Your task to perform on an android device: Clear the cart on bestbuy.com. Search for alienware aurora on bestbuy.com, select the first entry, add it to the cart, then select checkout. Image 0: 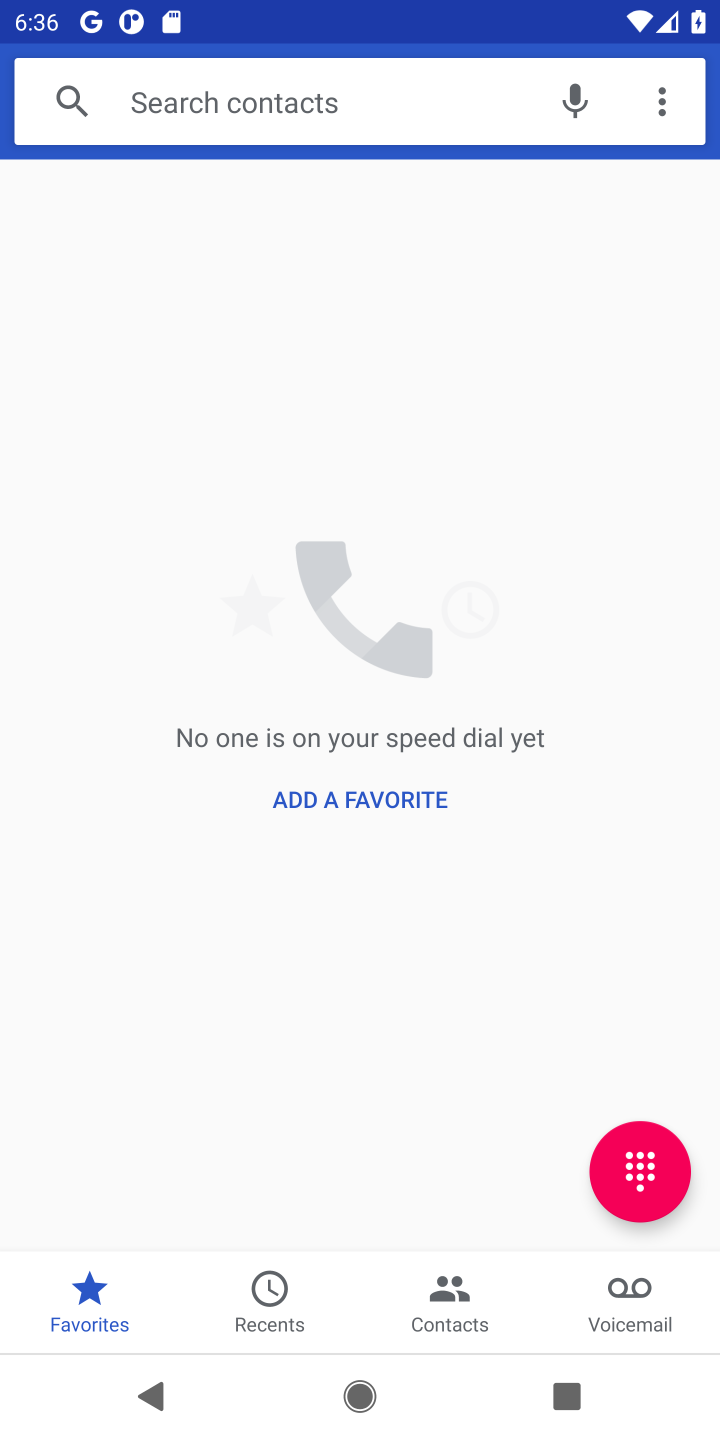
Step 0: press home button
Your task to perform on an android device: Clear the cart on bestbuy.com. Search for alienware aurora on bestbuy.com, select the first entry, add it to the cart, then select checkout. Image 1: 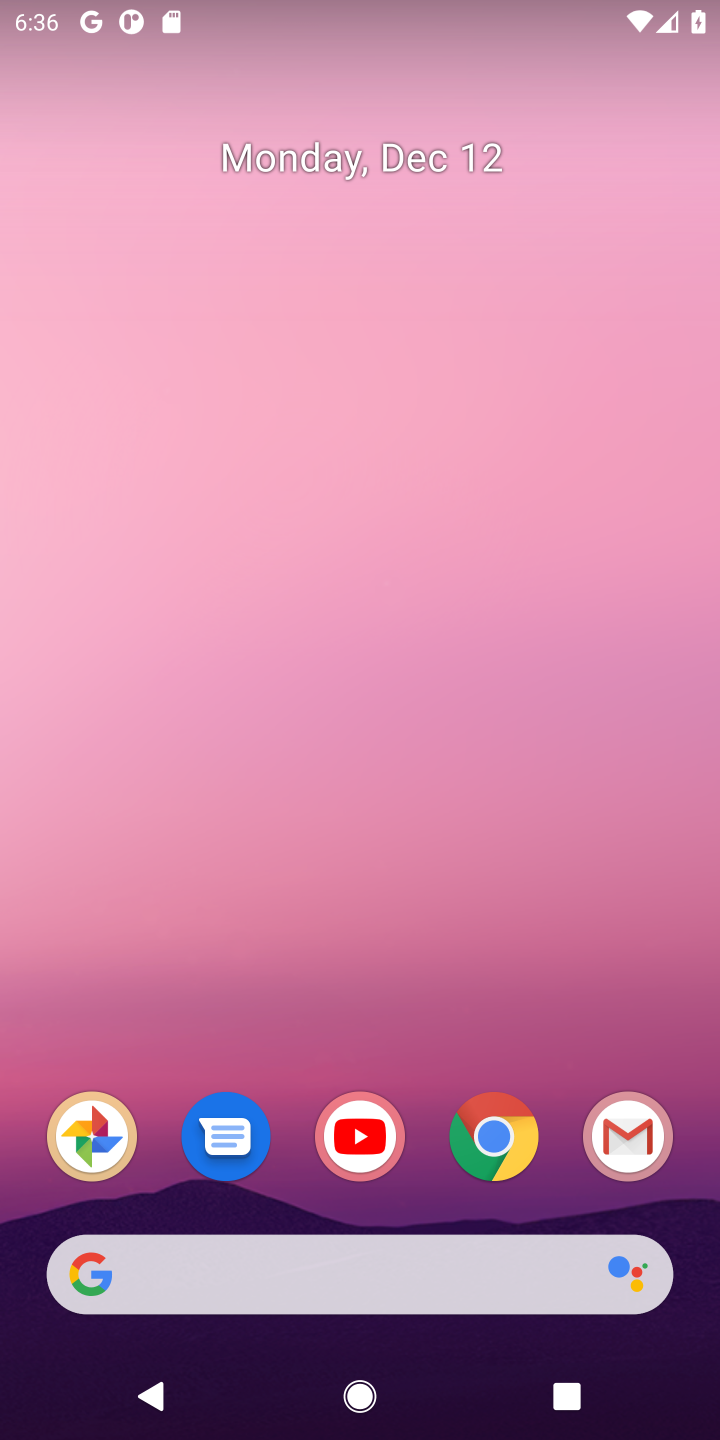
Step 1: click (488, 1147)
Your task to perform on an android device: Clear the cart on bestbuy.com. Search for alienware aurora on bestbuy.com, select the first entry, add it to the cart, then select checkout. Image 2: 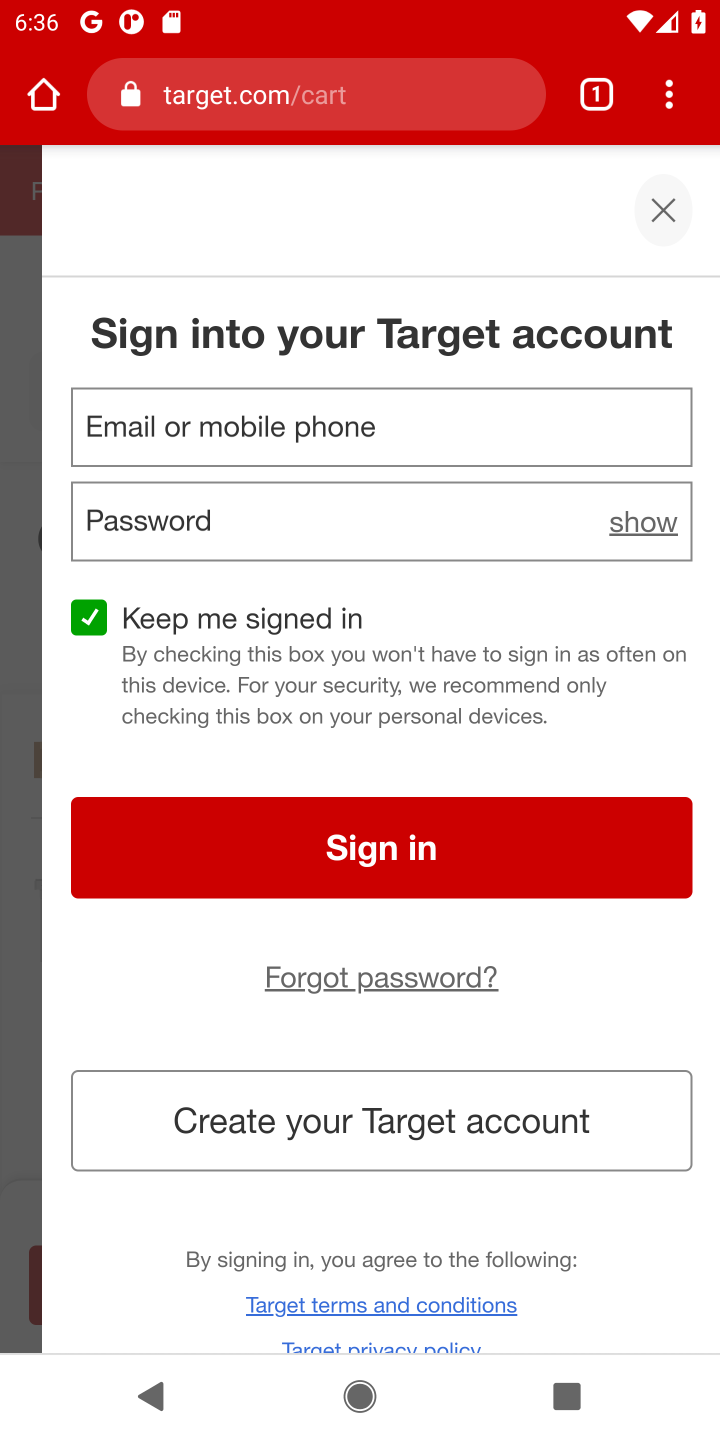
Step 2: click (250, 98)
Your task to perform on an android device: Clear the cart on bestbuy.com. Search for alienware aurora on bestbuy.com, select the first entry, add it to the cart, then select checkout. Image 3: 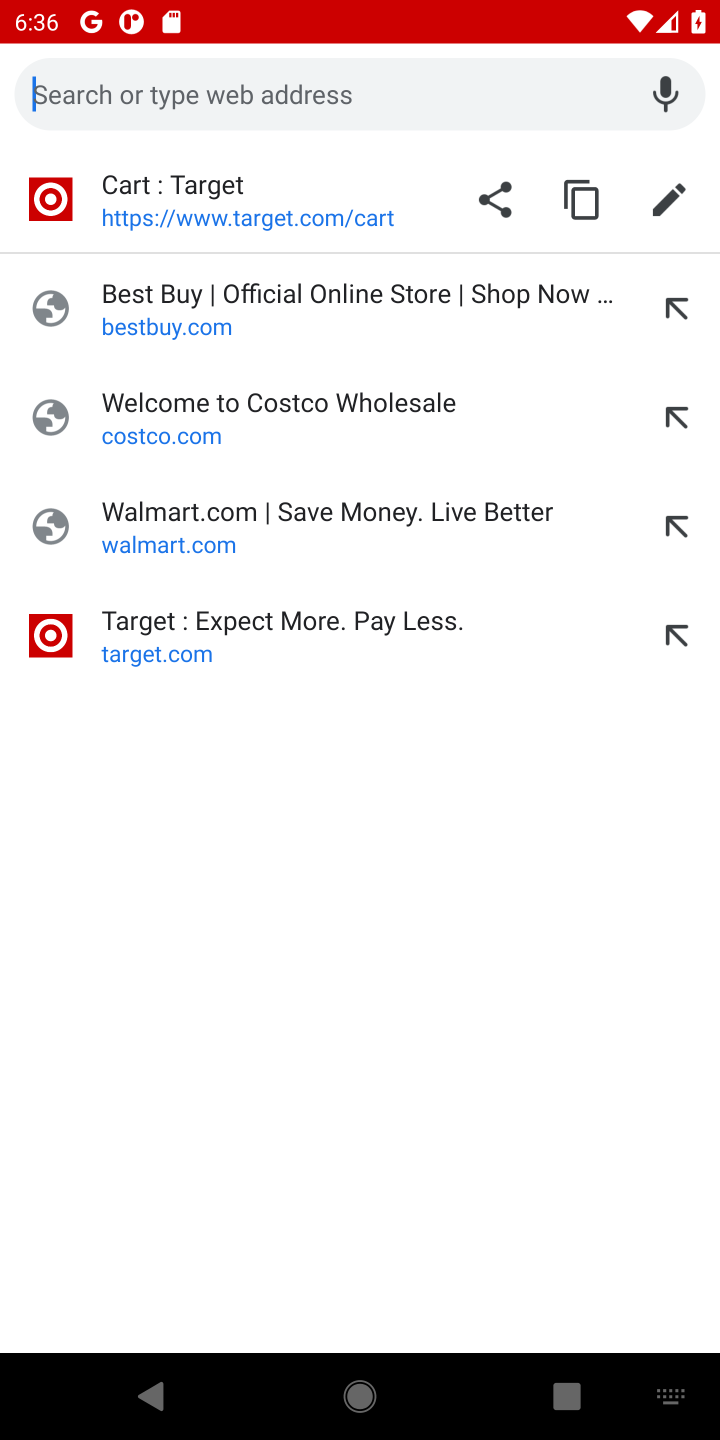
Step 3: click (186, 330)
Your task to perform on an android device: Clear the cart on bestbuy.com. Search for alienware aurora on bestbuy.com, select the first entry, add it to the cart, then select checkout. Image 4: 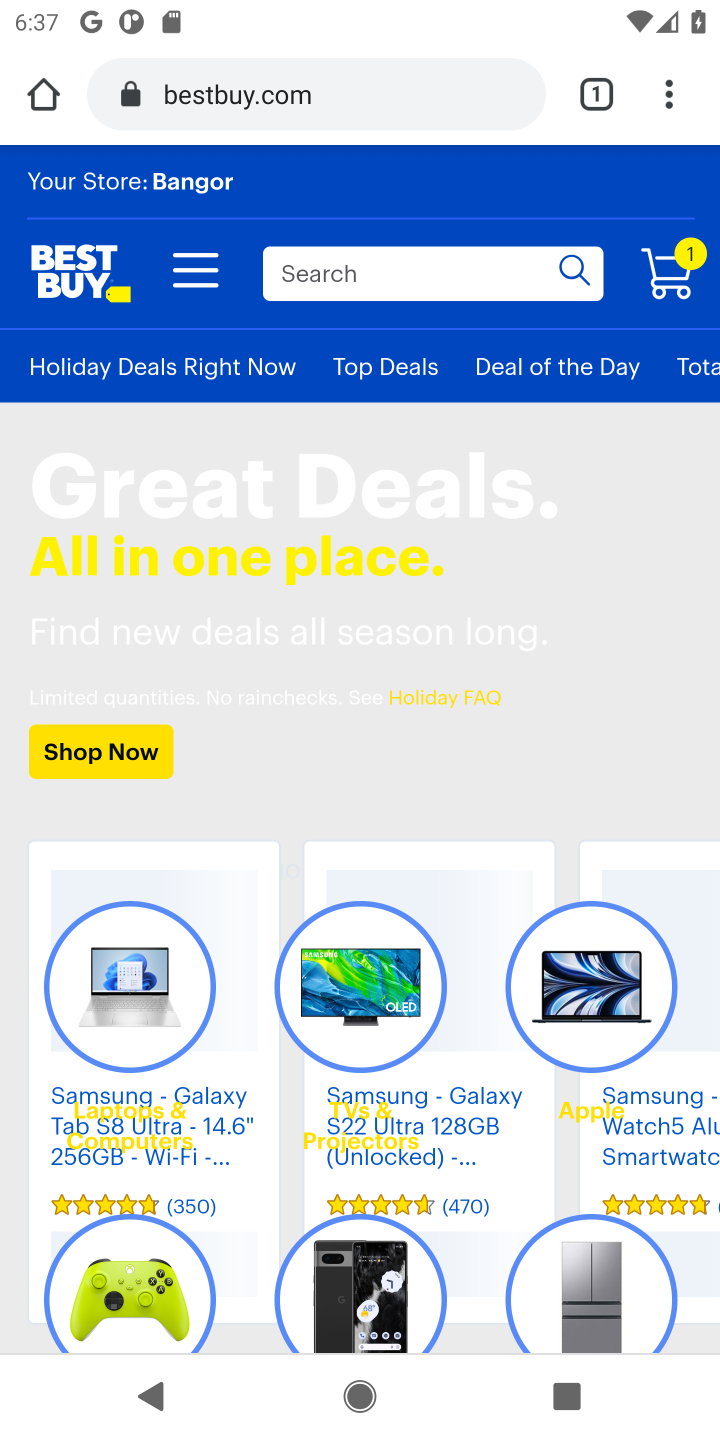
Step 4: click (665, 276)
Your task to perform on an android device: Clear the cart on bestbuy.com. Search for alienware aurora on bestbuy.com, select the first entry, add it to the cart, then select checkout. Image 5: 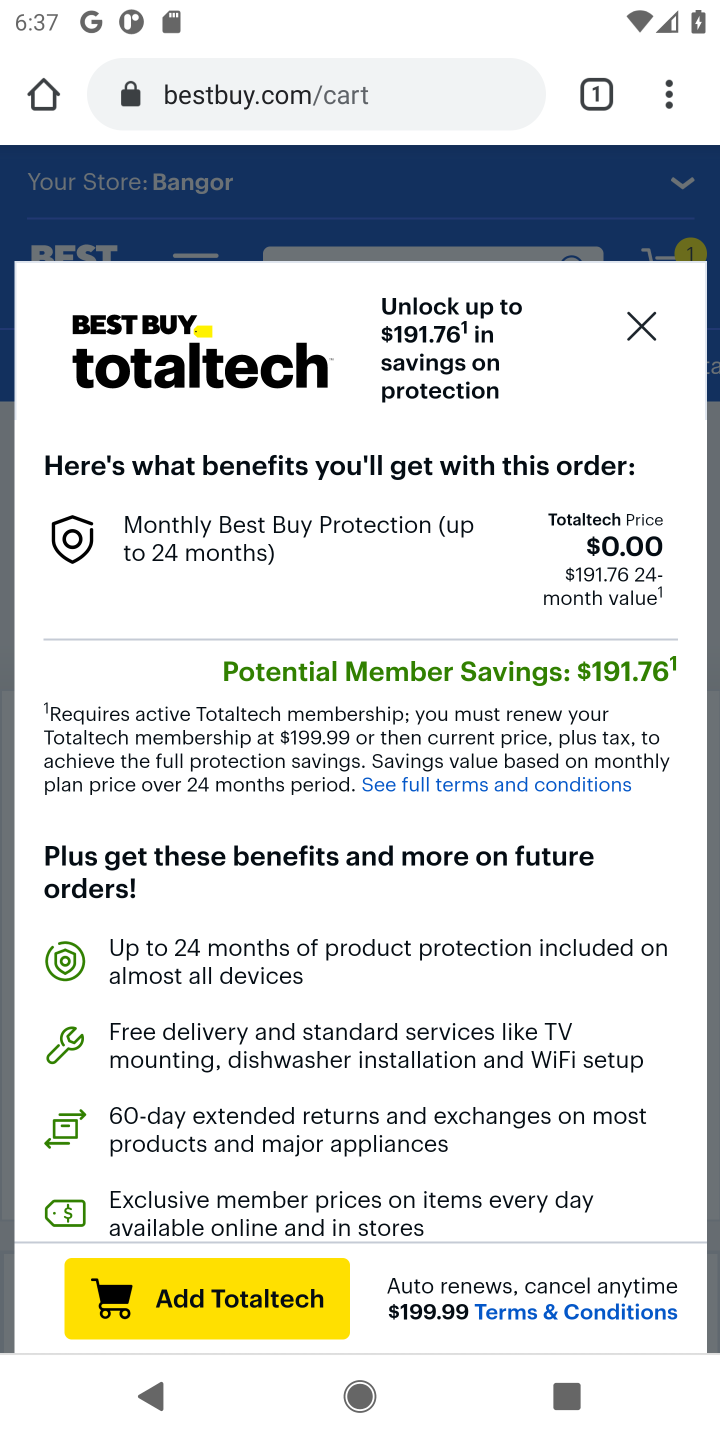
Step 5: click (640, 326)
Your task to perform on an android device: Clear the cart on bestbuy.com. Search for alienware aurora on bestbuy.com, select the first entry, add it to the cart, then select checkout. Image 6: 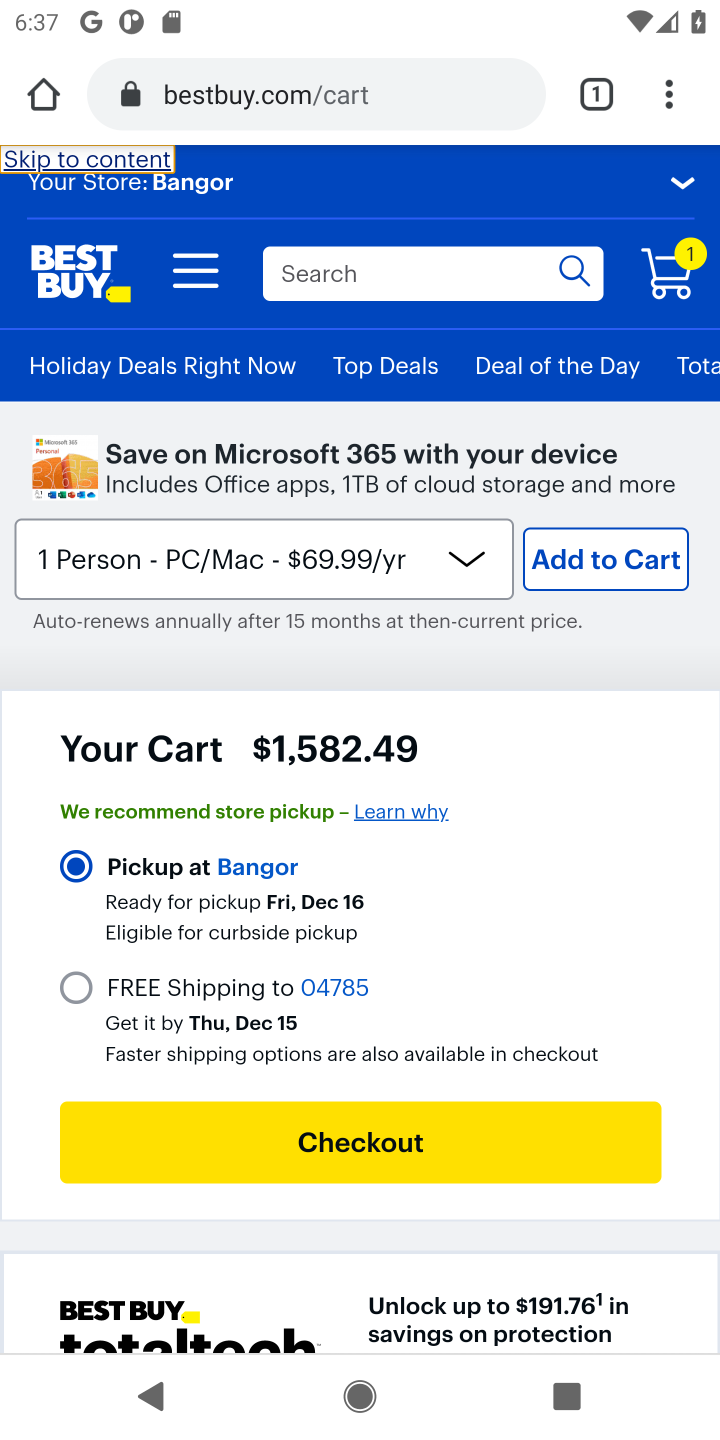
Step 6: drag from (465, 771) to (472, 301)
Your task to perform on an android device: Clear the cart on bestbuy.com. Search for alienware aurora on bestbuy.com, select the first entry, add it to the cart, then select checkout. Image 7: 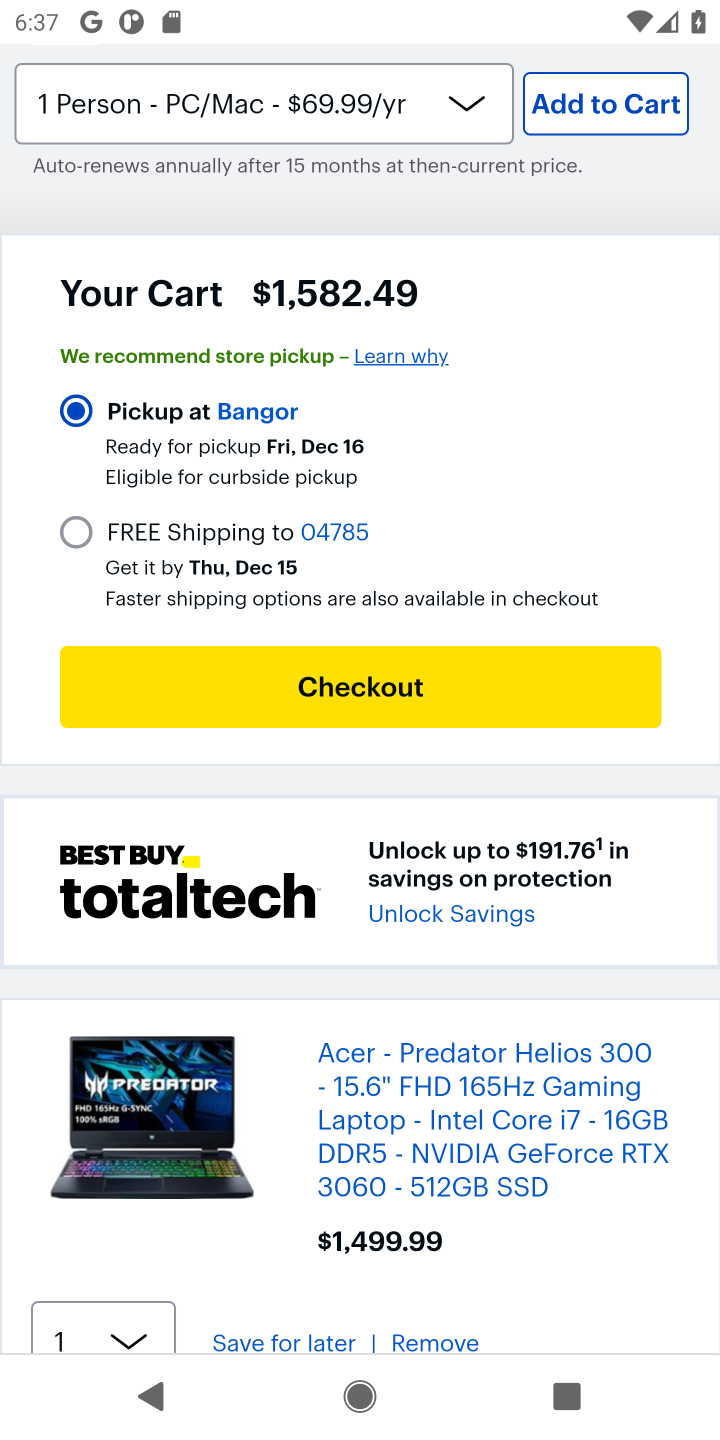
Step 7: drag from (451, 873) to (456, 355)
Your task to perform on an android device: Clear the cart on bestbuy.com. Search for alienware aurora on bestbuy.com, select the first entry, add it to the cart, then select checkout. Image 8: 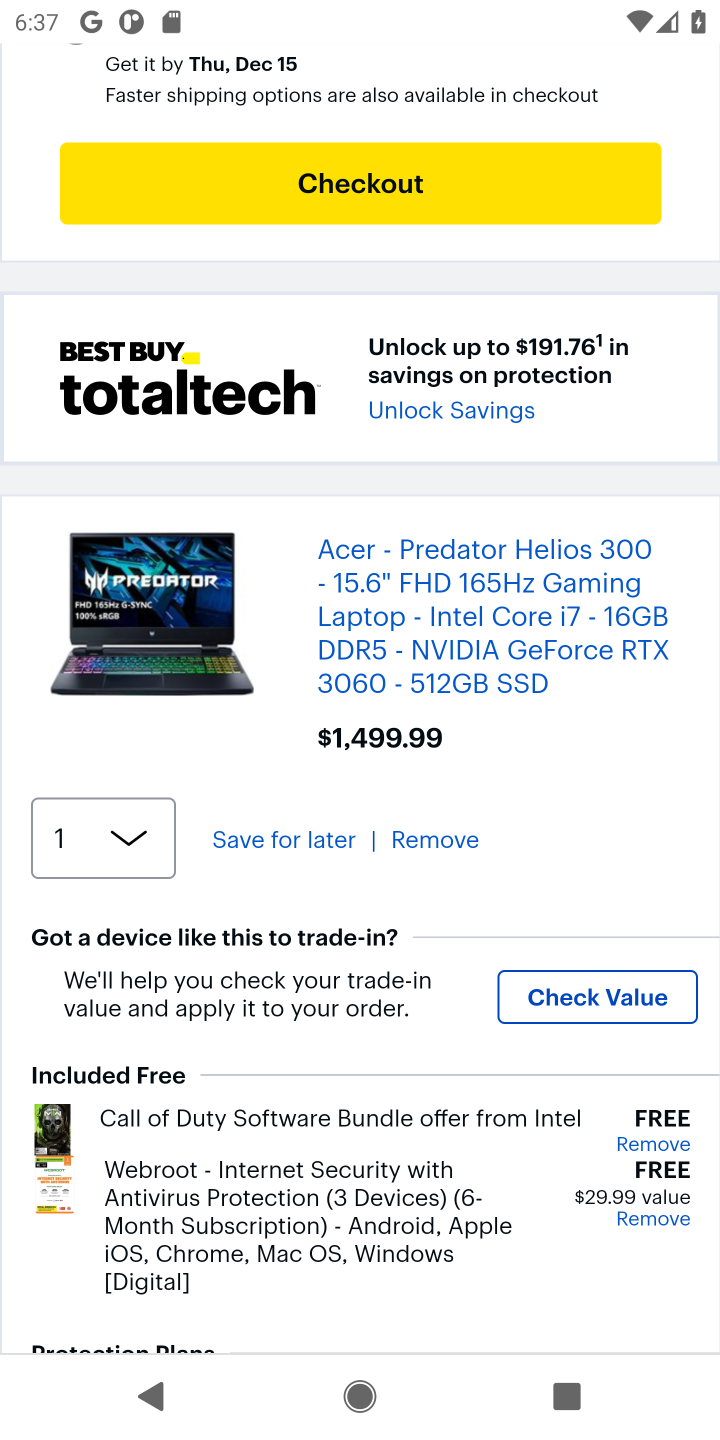
Step 8: click (418, 843)
Your task to perform on an android device: Clear the cart on bestbuy.com. Search for alienware aurora on bestbuy.com, select the first entry, add it to the cart, then select checkout. Image 9: 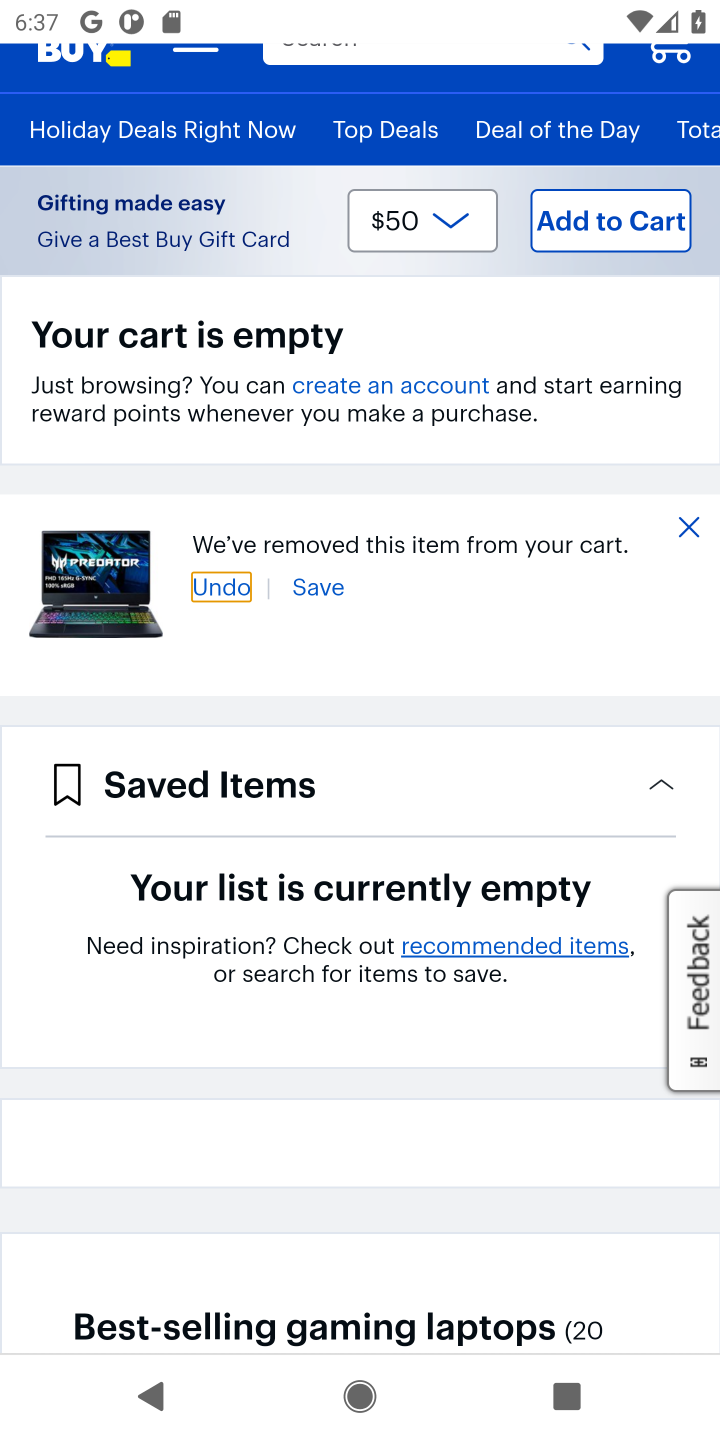
Step 9: drag from (327, 464) to (338, 887)
Your task to perform on an android device: Clear the cart on bestbuy.com. Search for alienware aurora on bestbuy.com, select the first entry, add it to the cart, then select checkout. Image 10: 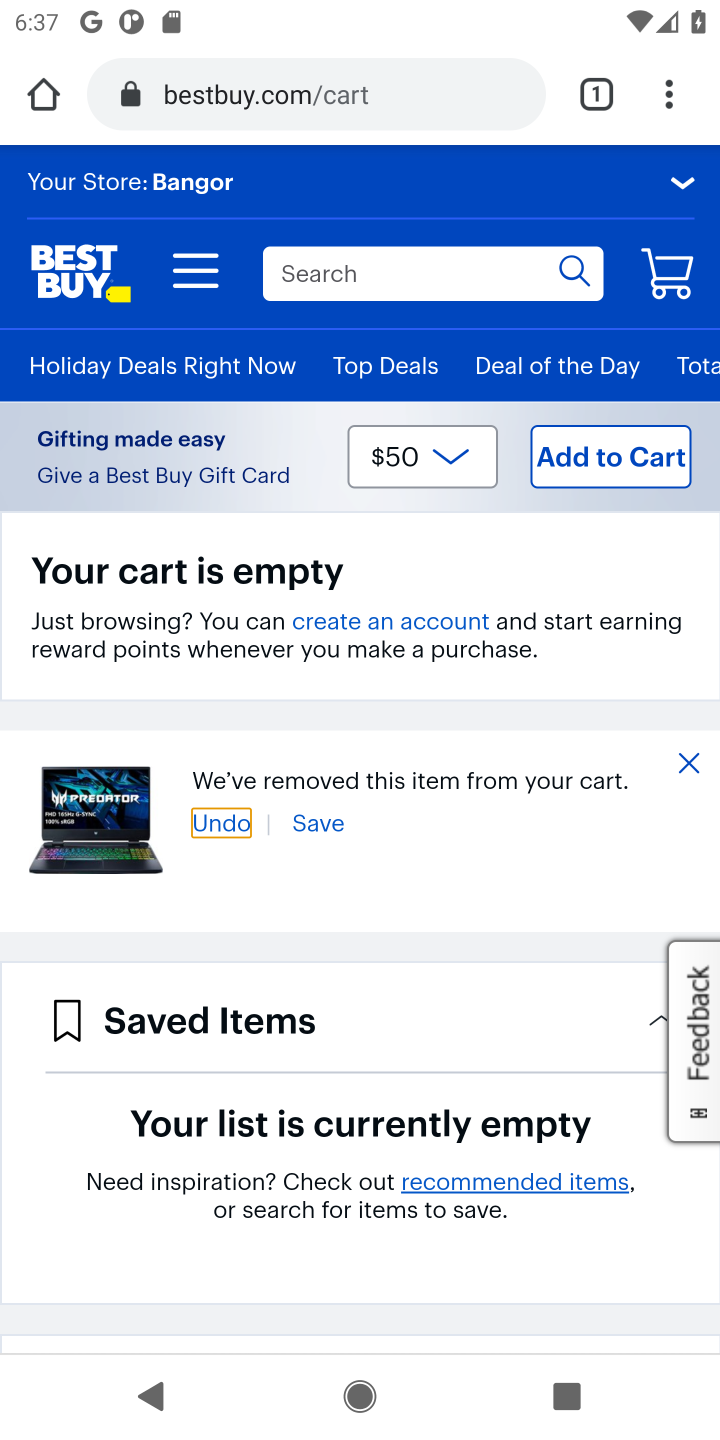
Step 10: click (324, 275)
Your task to perform on an android device: Clear the cart on bestbuy.com. Search for alienware aurora on bestbuy.com, select the first entry, add it to the cart, then select checkout. Image 11: 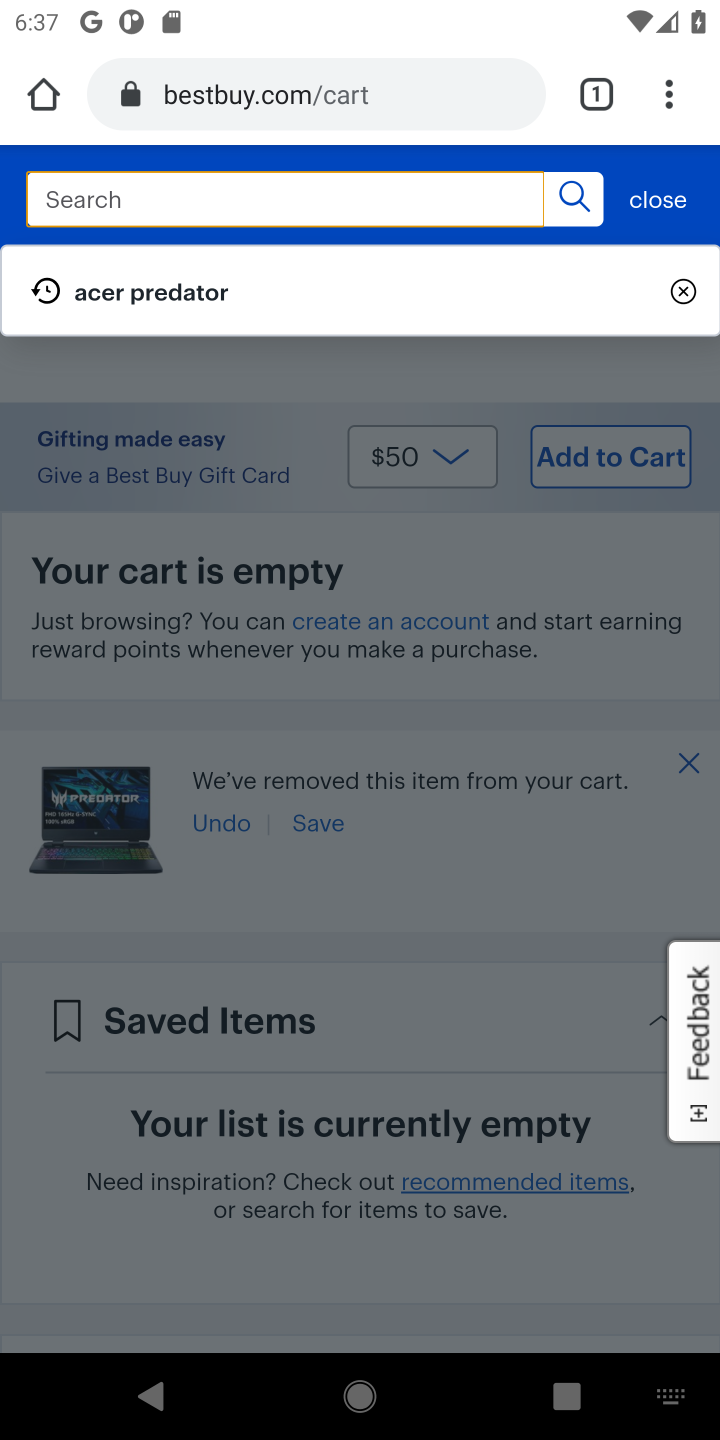
Step 11: type "alienware aurora"
Your task to perform on an android device: Clear the cart on bestbuy.com. Search for alienware aurora on bestbuy.com, select the first entry, add it to the cart, then select checkout. Image 12: 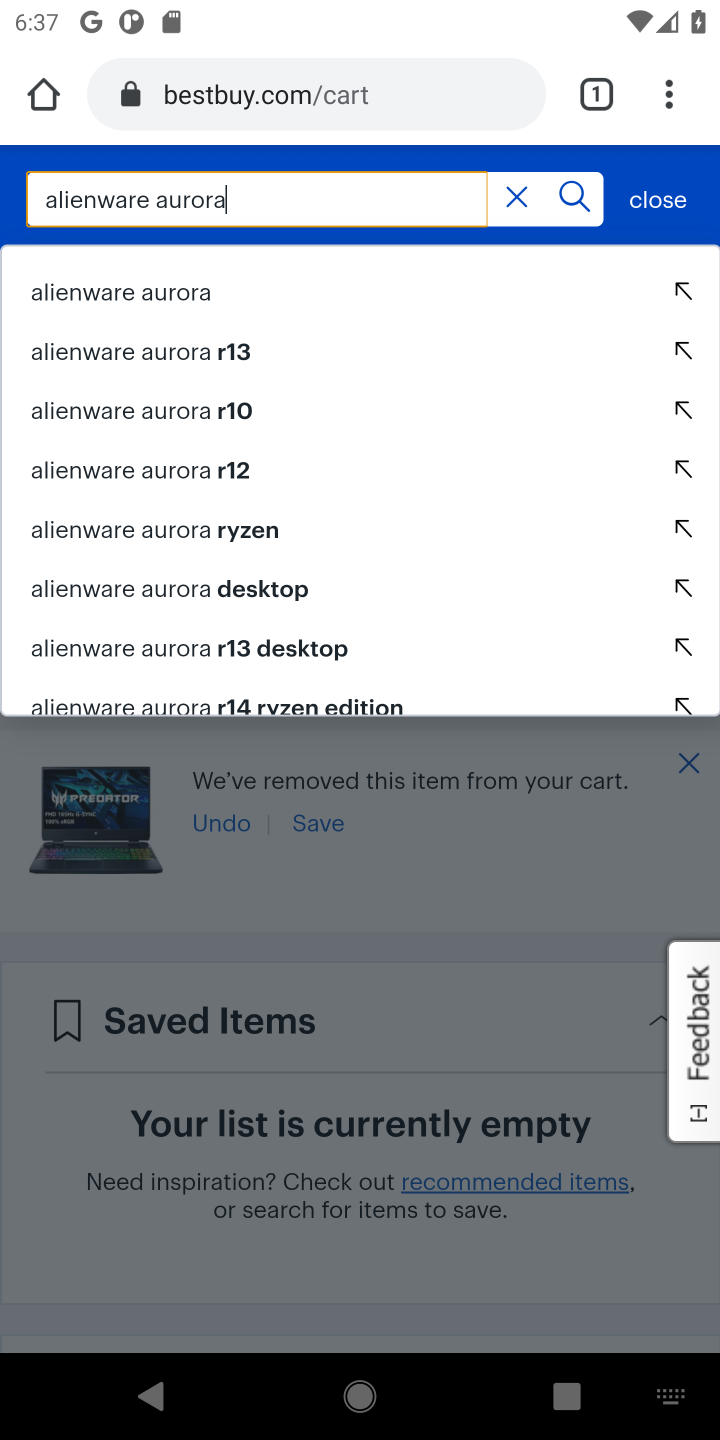
Step 12: click (137, 297)
Your task to perform on an android device: Clear the cart on bestbuy.com. Search for alienware aurora on bestbuy.com, select the first entry, add it to the cart, then select checkout. Image 13: 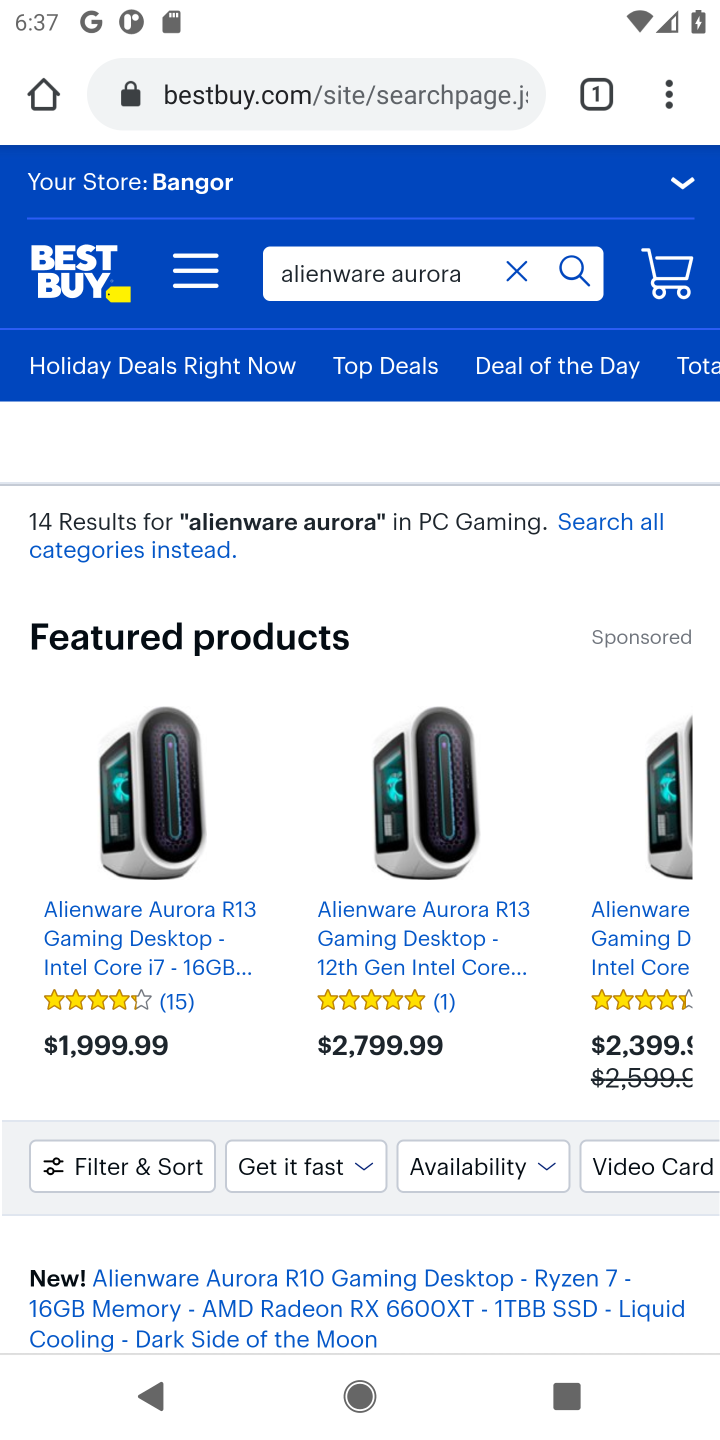
Step 13: drag from (265, 932) to (260, 408)
Your task to perform on an android device: Clear the cart on bestbuy.com. Search for alienware aurora on bestbuy.com, select the first entry, add it to the cart, then select checkout. Image 14: 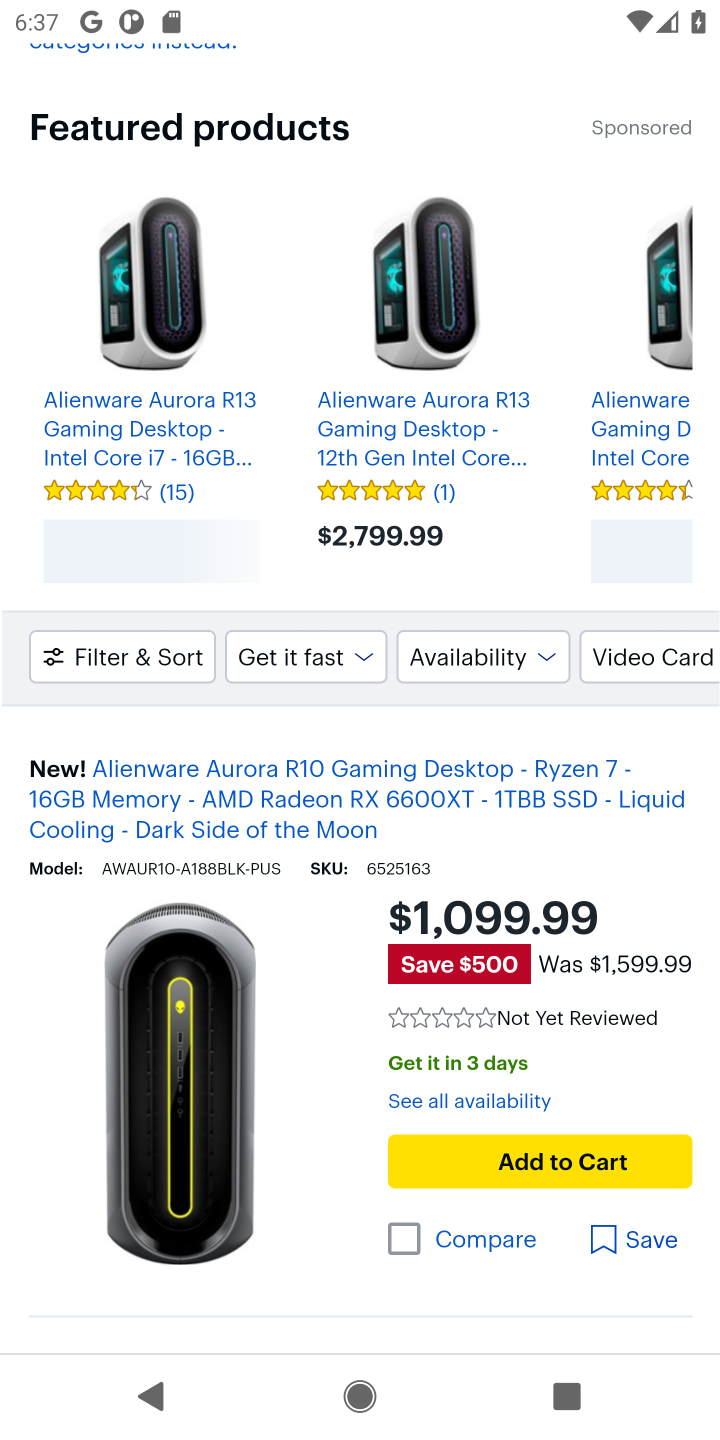
Step 14: drag from (230, 966) to (255, 492)
Your task to perform on an android device: Clear the cart on bestbuy.com. Search for alienware aurora on bestbuy.com, select the first entry, add it to the cart, then select checkout. Image 15: 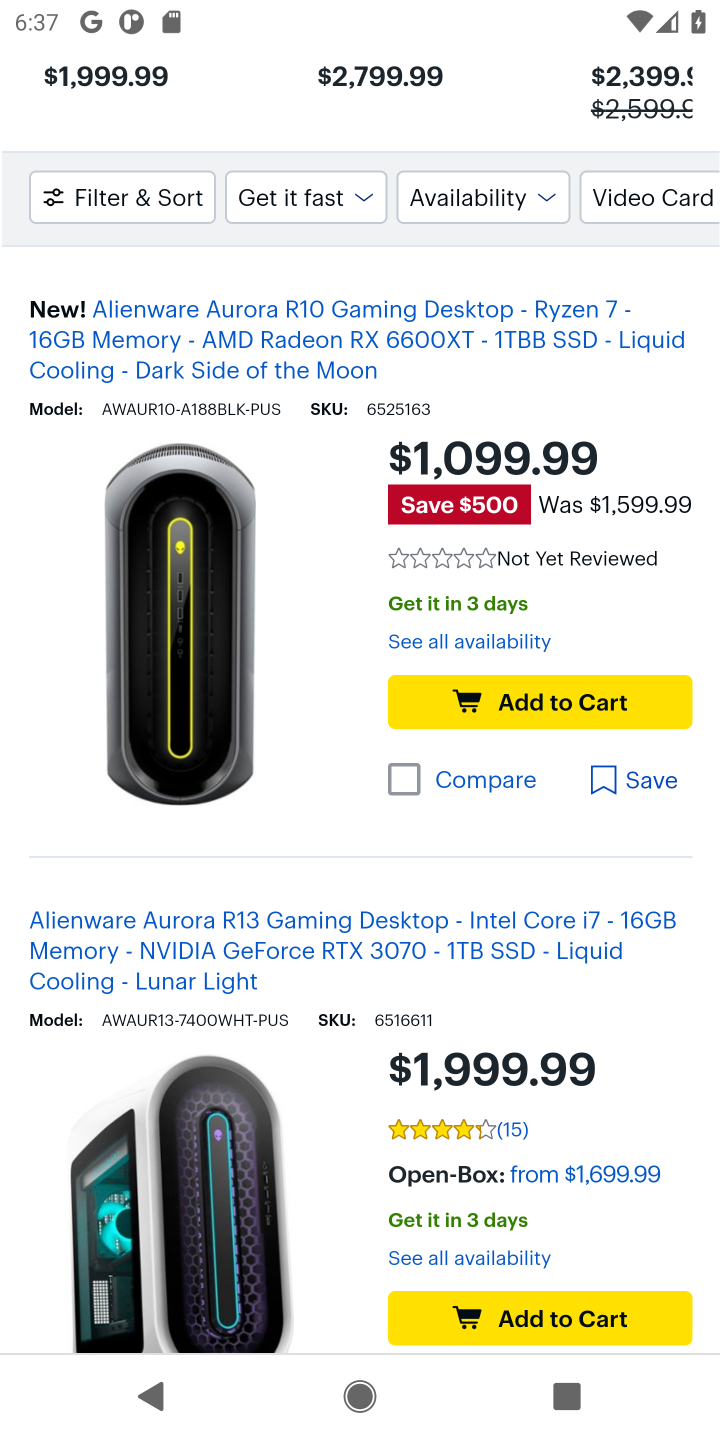
Step 15: click (480, 771)
Your task to perform on an android device: Clear the cart on bestbuy.com. Search for alienware aurora on bestbuy.com, select the first entry, add it to the cart, then select checkout. Image 16: 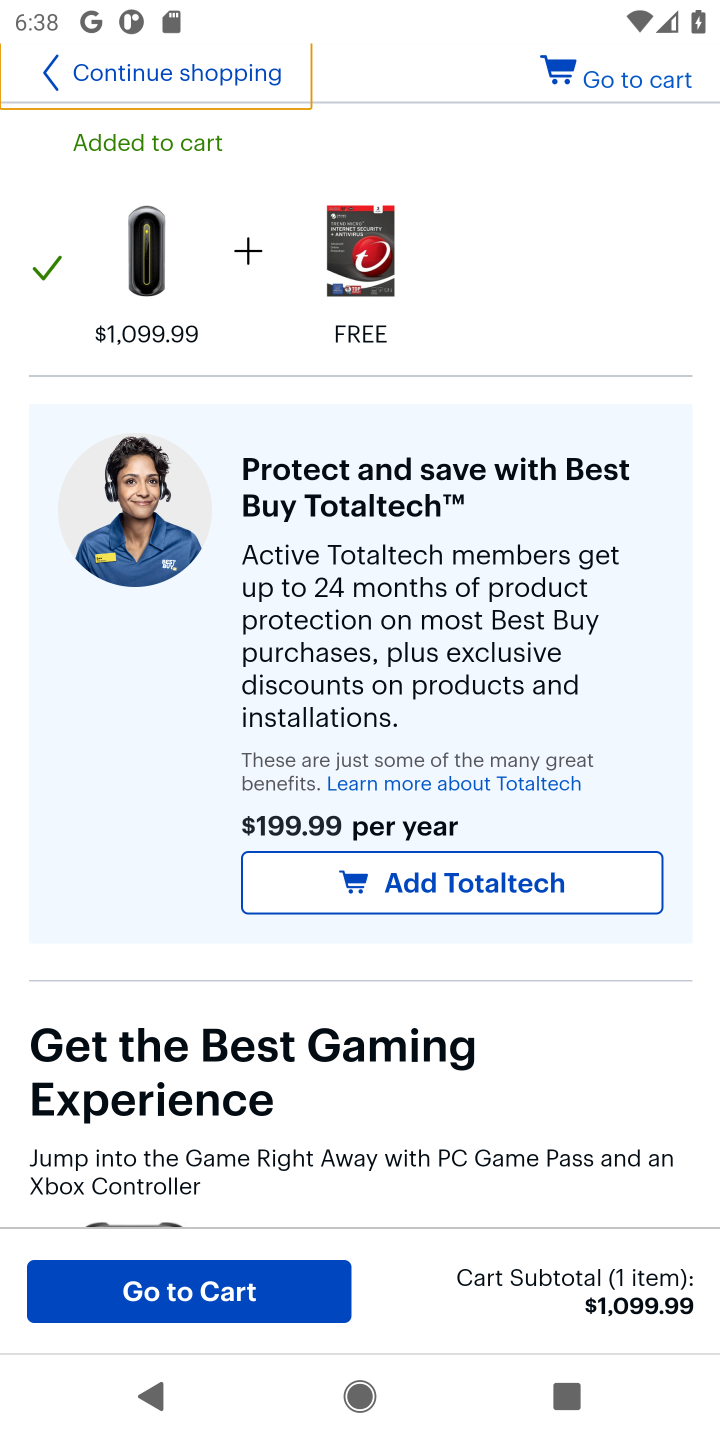
Step 16: click (629, 90)
Your task to perform on an android device: Clear the cart on bestbuy.com. Search for alienware aurora on bestbuy.com, select the first entry, add it to the cart, then select checkout. Image 17: 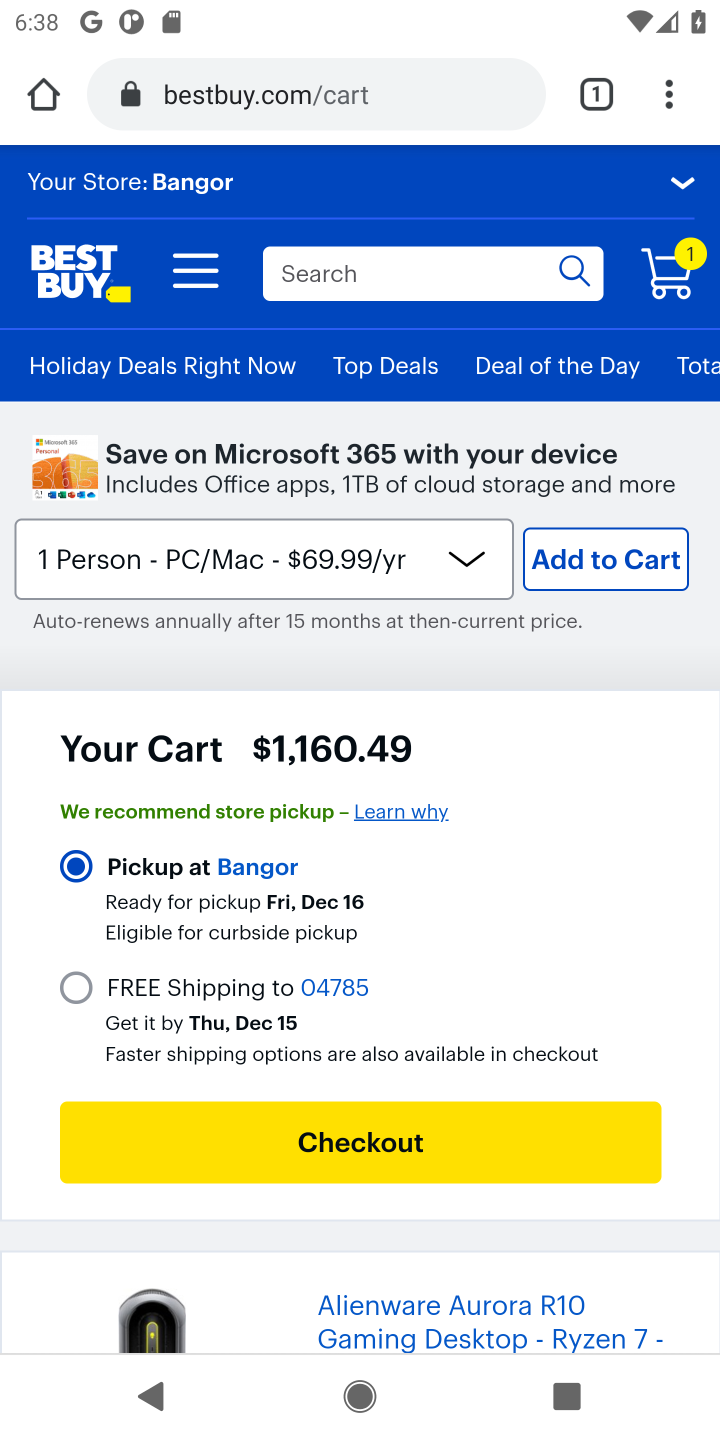
Step 17: click (336, 1134)
Your task to perform on an android device: Clear the cart on bestbuy.com. Search for alienware aurora on bestbuy.com, select the first entry, add it to the cart, then select checkout. Image 18: 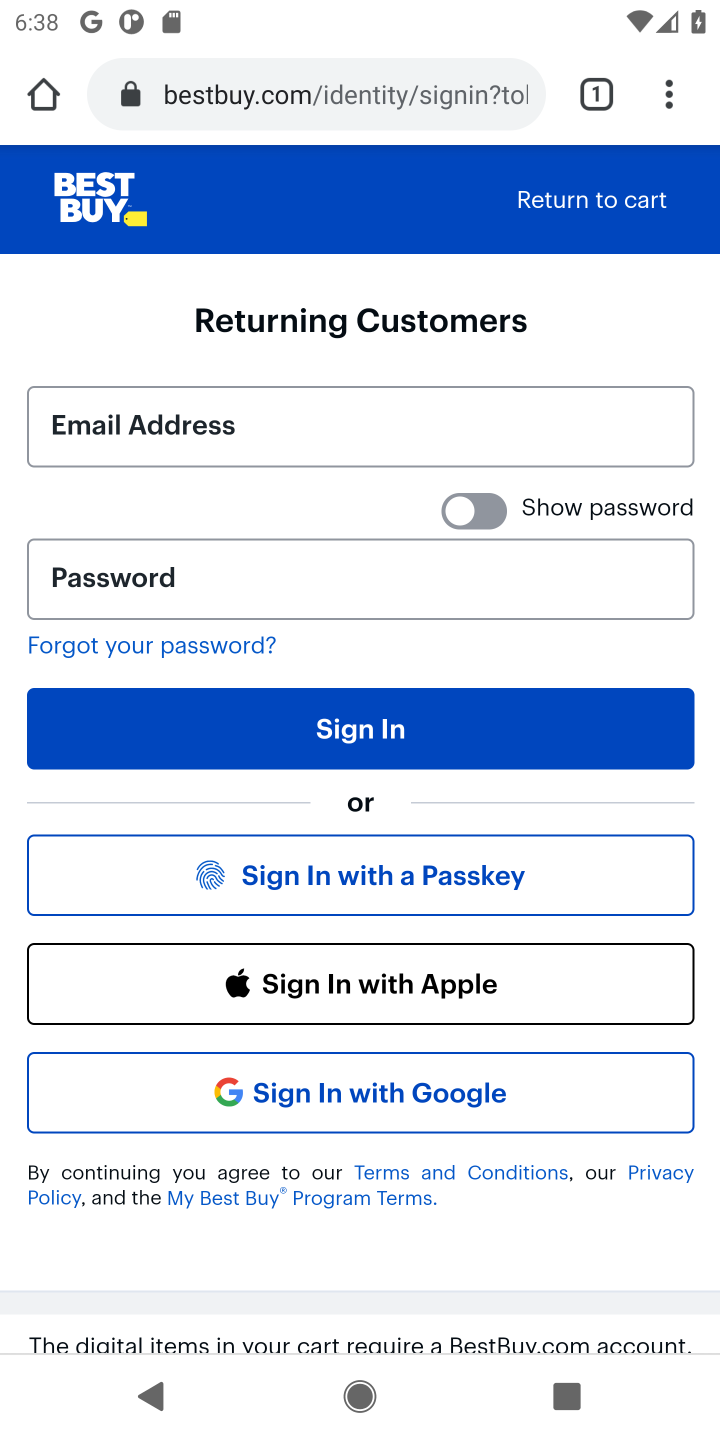
Step 18: task complete